Your task to perform on an android device: turn notification dots on Image 0: 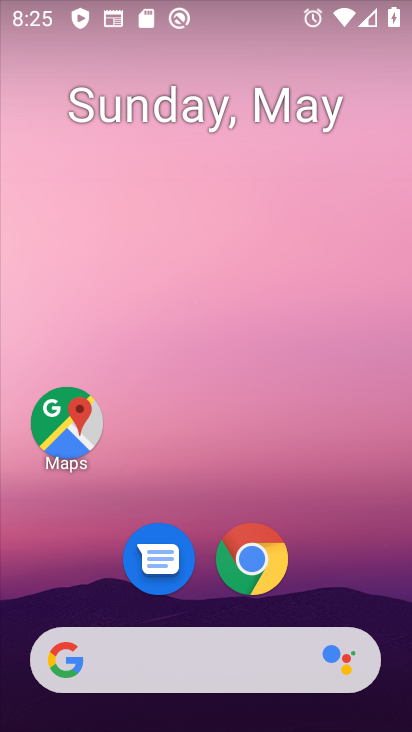
Step 0: drag from (68, 567) to (284, 233)
Your task to perform on an android device: turn notification dots on Image 1: 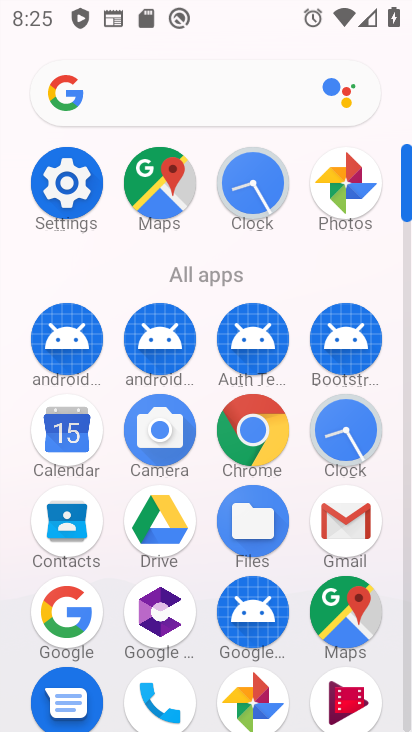
Step 1: click (79, 194)
Your task to perform on an android device: turn notification dots on Image 2: 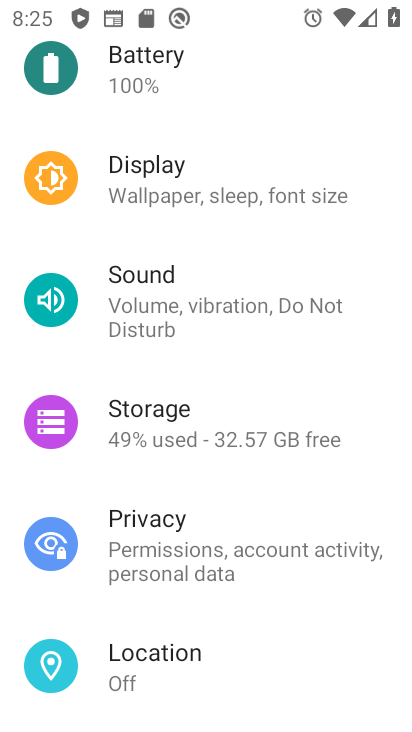
Step 2: drag from (164, 219) to (202, 704)
Your task to perform on an android device: turn notification dots on Image 3: 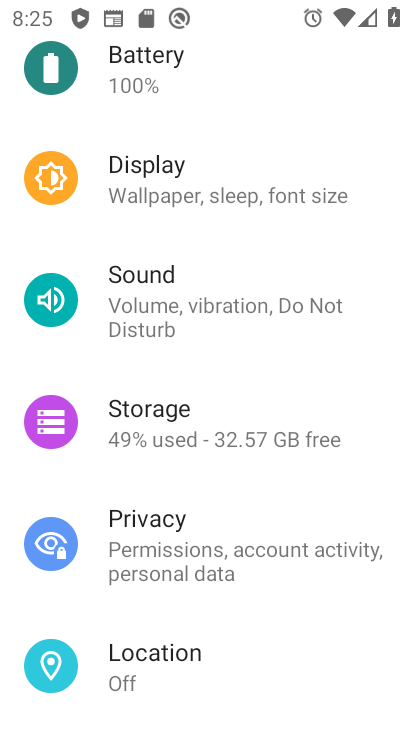
Step 3: drag from (309, 244) to (206, 688)
Your task to perform on an android device: turn notification dots on Image 4: 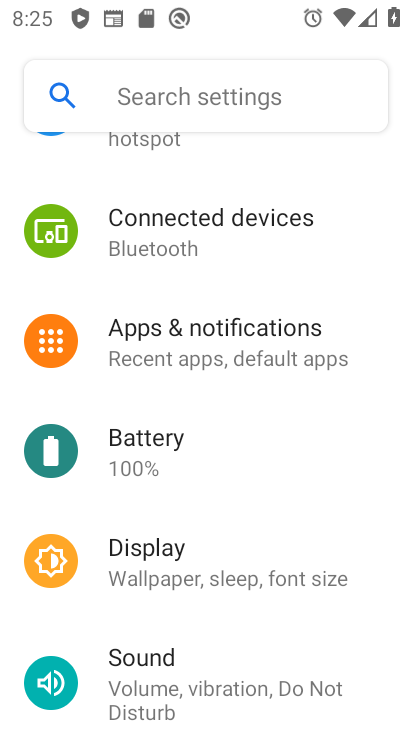
Step 4: click (149, 343)
Your task to perform on an android device: turn notification dots on Image 5: 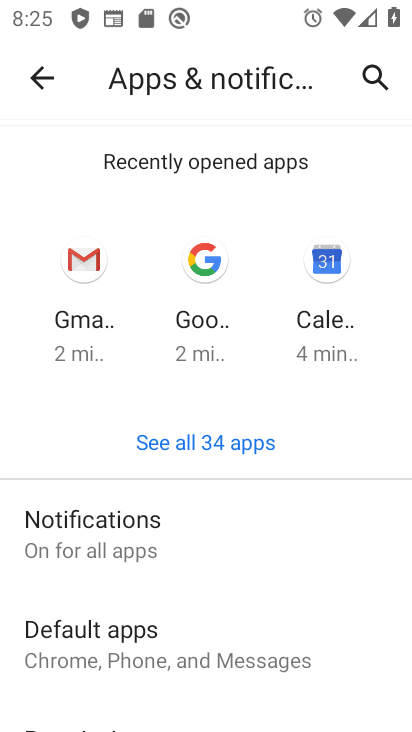
Step 5: click (242, 573)
Your task to perform on an android device: turn notification dots on Image 6: 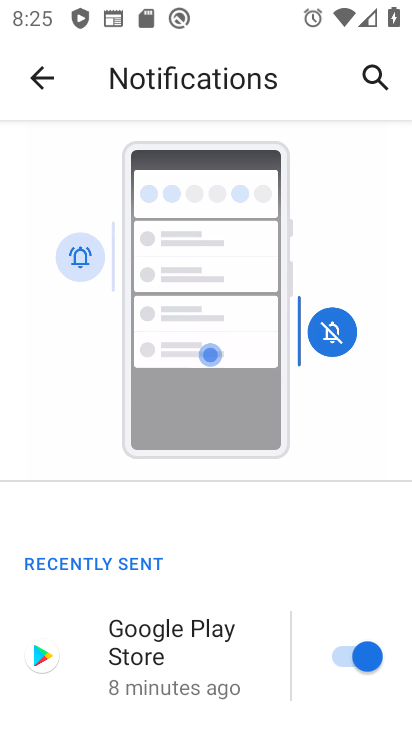
Step 6: drag from (18, 653) to (286, 177)
Your task to perform on an android device: turn notification dots on Image 7: 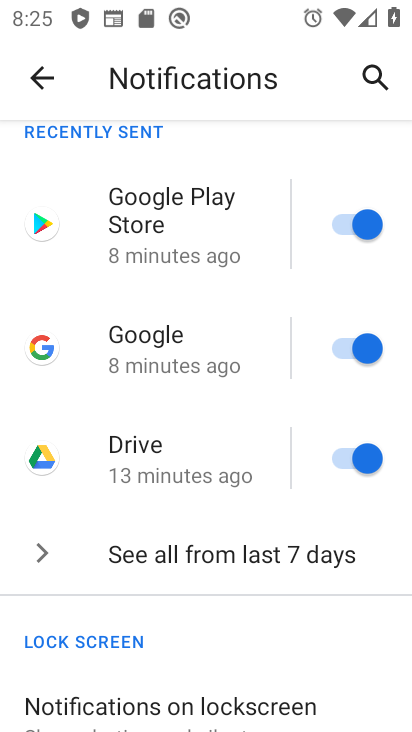
Step 7: drag from (105, 690) to (242, 360)
Your task to perform on an android device: turn notification dots on Image 8: 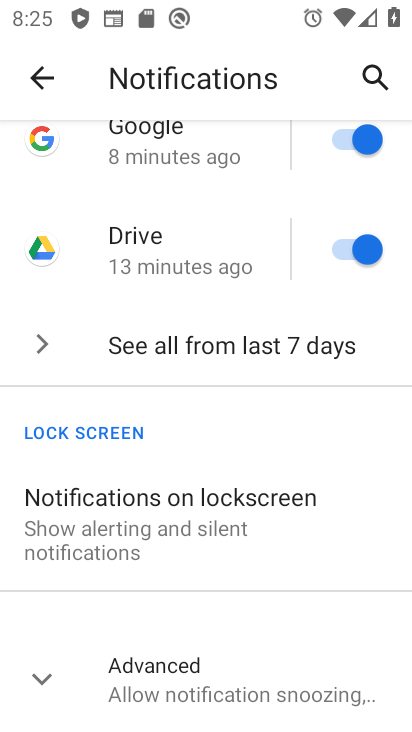
Step 8: click (116, 692)
Your task to perform on an android device: turn notification dots on Image 9: 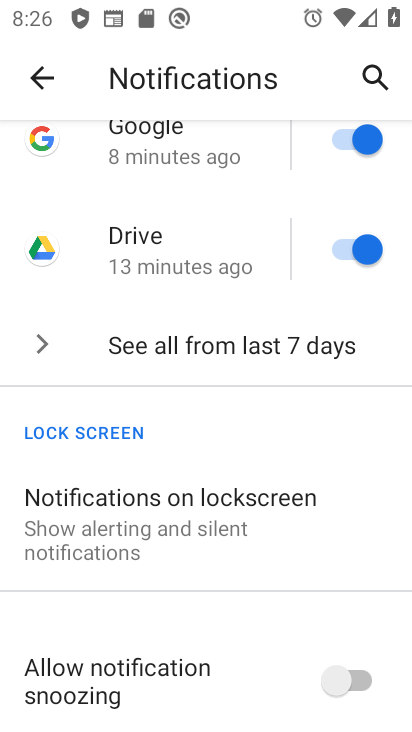
Step 9: drag from (136, 698) to (235, 417)
Your task to perform on an android device: turn notification dots on Image 10: 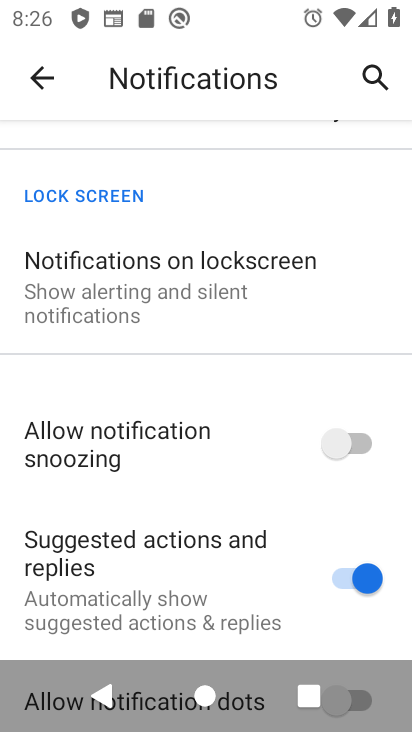
Step 10: drag from (192, 624) to (264, 383)
Your task to perform on an android device: turn notification dots on Image 11: 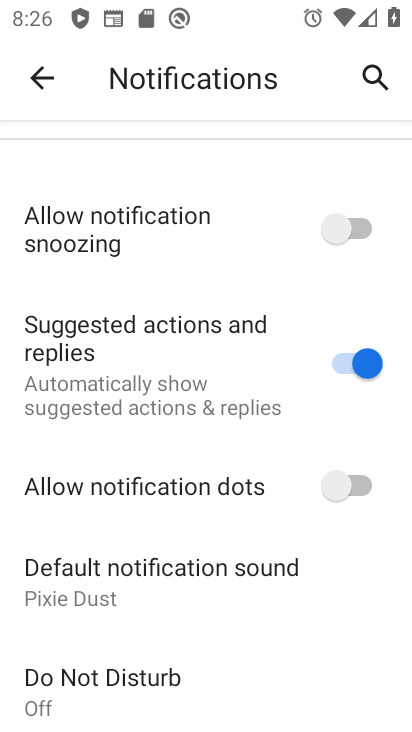
Step 11: click (330, 499)
Your task to perform on an android device: turn notification dots on Image 12: 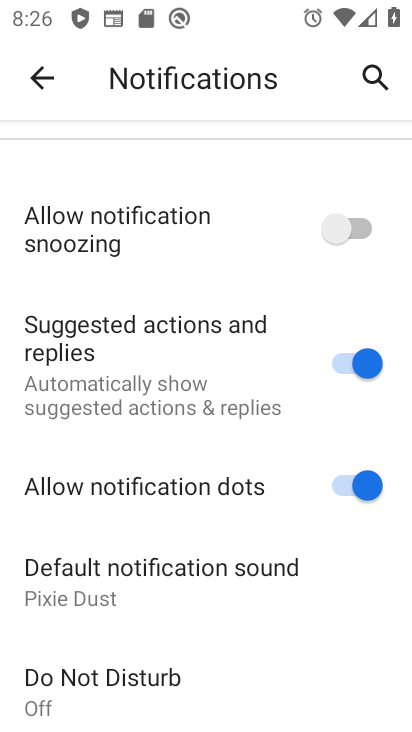
Step 12: task complete